Your task to perform on an android device: visit the assistant section in the google photos Image 0: 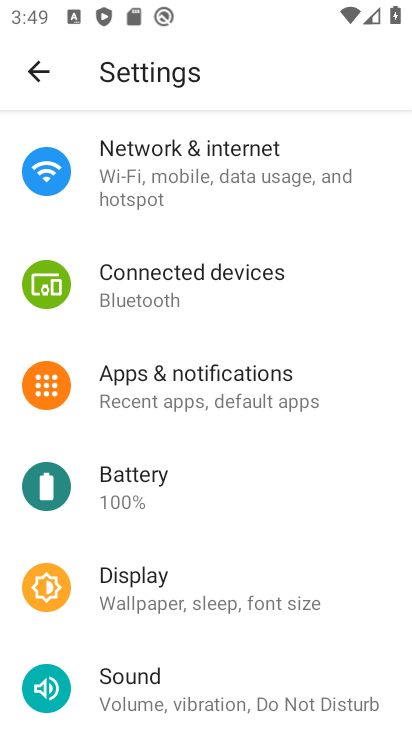
Step 0: press home button
Your task to perform on an android device: visit the assistant section in the google photos Image 1: 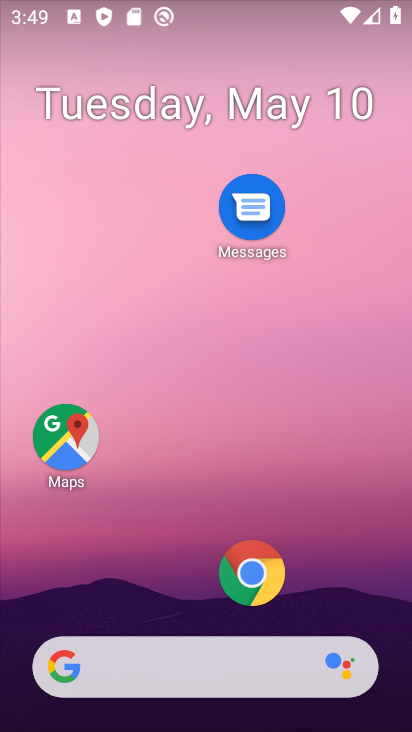
Step 1: drag from (196, 590) to (143, 126)
Your task to perform on an android device: visit the assistant section in the google photos Image 2: 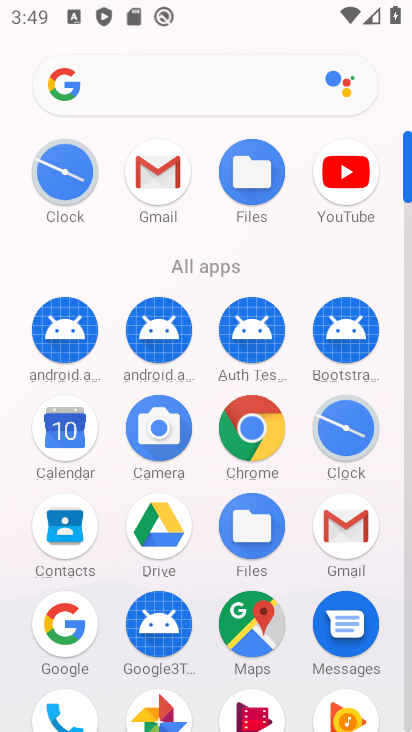
Step 2: drag from (208, 637) to (201, 444)
Your task to perform on an android device: visit the assistant section in the google photos Image 3: 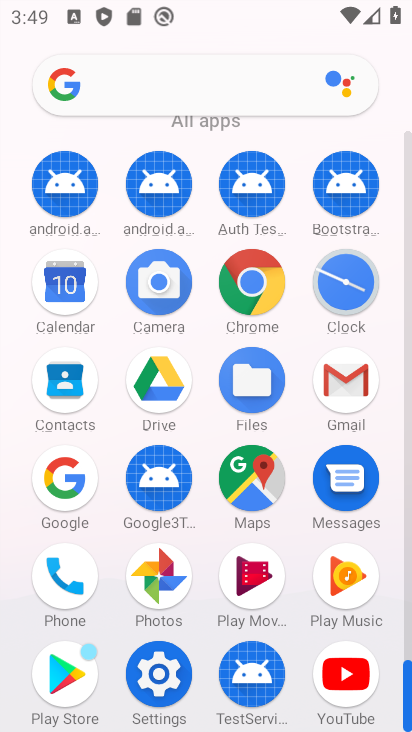
Step 3: click (161, 552)
Your task to perform on an android device: visit the assistant section in the google photos Image 4: 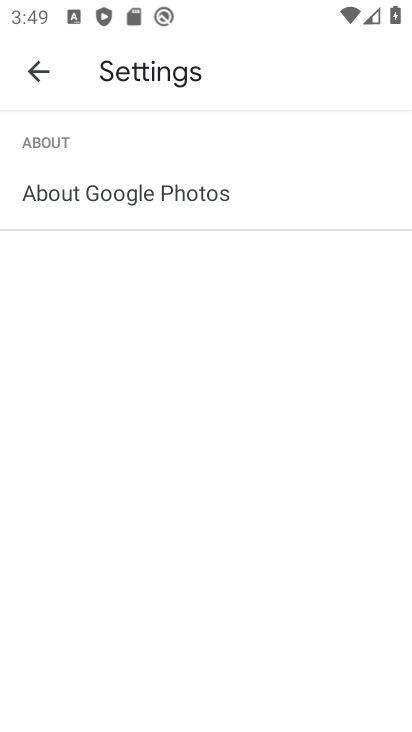
Step 4: click (47, 80)
Your task to perform on an android device: visit the assistant section in the google photos Image 5: 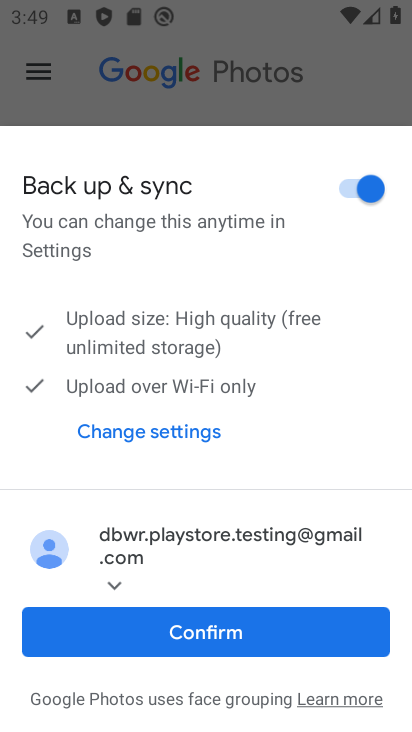
Step 5: click (231, 634)
Your task to perform on an android device: visit the assistant section in the google photos Image 6: 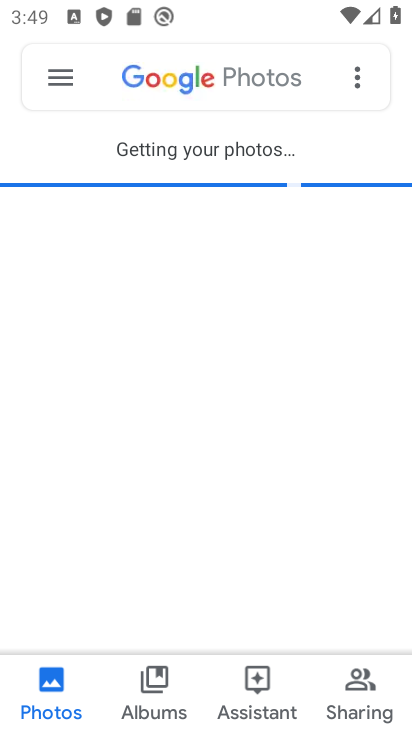
Step 6: click (24, 82)
Your task to perform on an android device: visit the assistant section in the google photos Image 7: 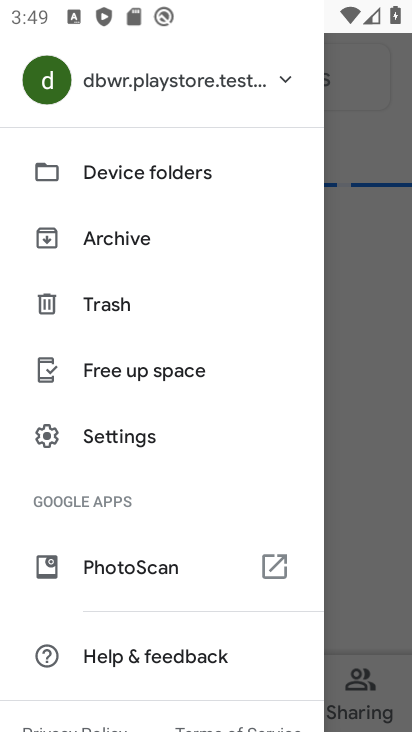
Step 7: click (258, 682)
Your task to perform on an android device: visit the assistant section in the google photos Image 8: 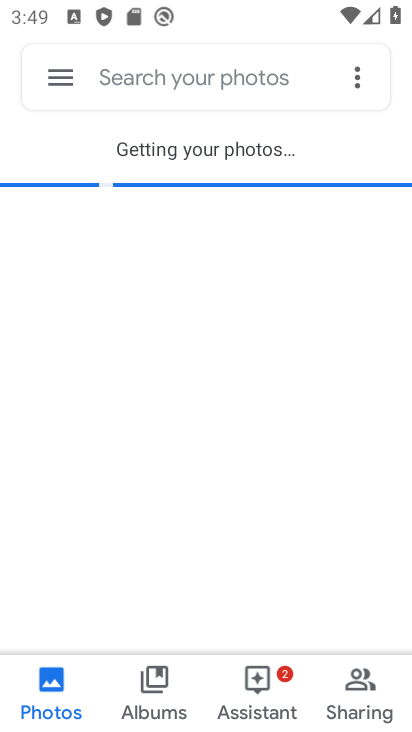
Step 8: click (258, 682)
Your task to perform on an android device: visit the assistant section in the google photos Image 9: 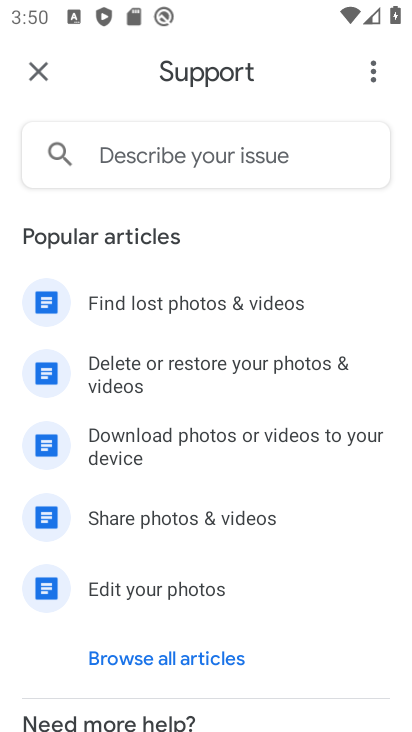
Step 9: click (46, 74)
Your task to perform on an android device: visit the assistant section in the google photos Image 10: 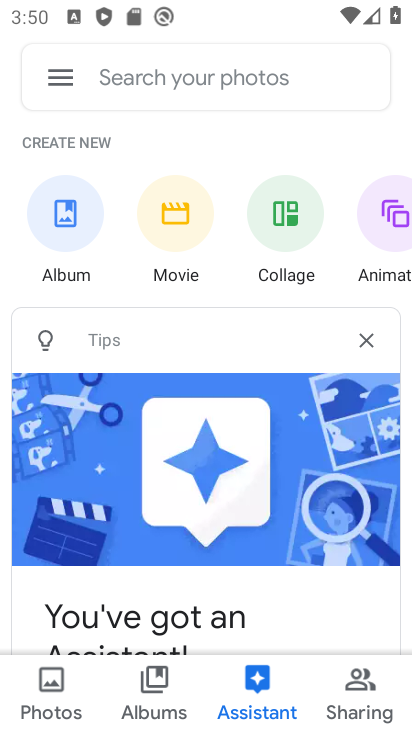
Step 10: task complete